Your task to perform on an android device: What's a good restaurant in Sacramento? Image 0: 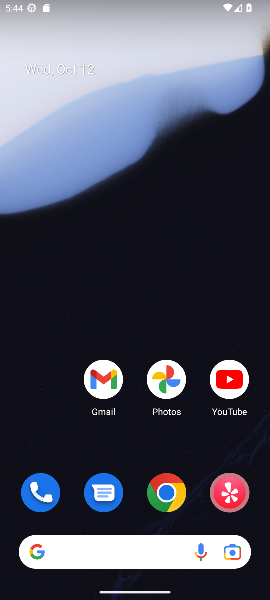
Step 0: click (163, 498)
Your task to perform on an android device: What's a good restaurant in Sacramento? Image 1: 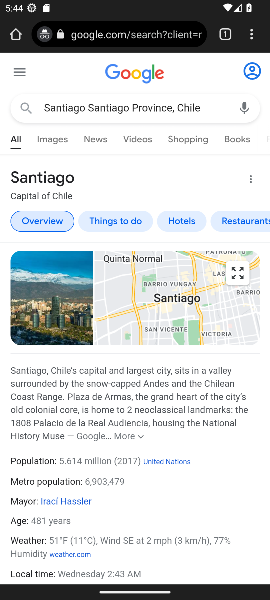
Step 1: click (157, 40)
Your task to perform on an android device: What's a good restaurant in Sacramento? Image 2: 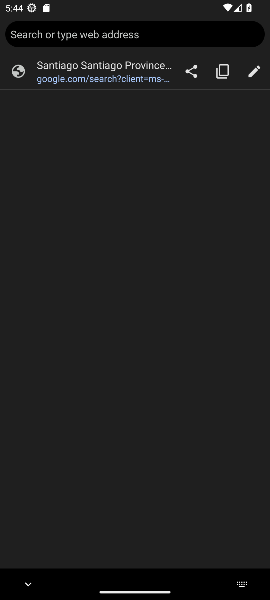
Step 2: type "a good restaurant in Sacramento"
Your task to perform on an android device: What's a good restaurant in Sacramento? Image 3: 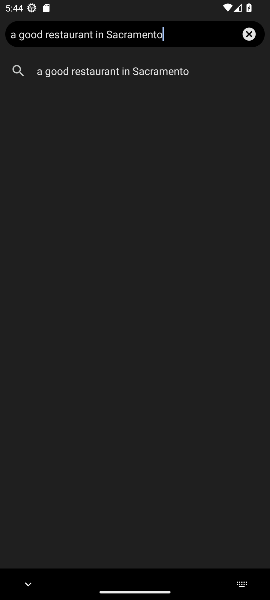
Step 3: click (102, 79)
Your task to perform on an android device: What's a good restaurant in Sacramento? Image 4: 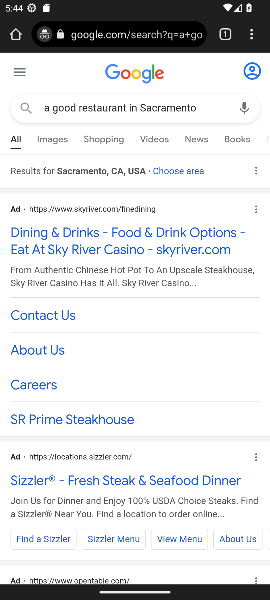
Step 4: task complete